Your task to perform on an android device: toggle javascript in the chrome app Image 0: 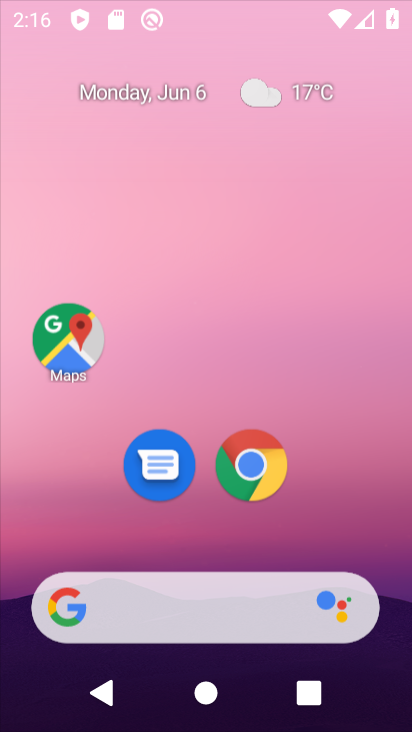
Step 0: click (342, 86)
Your task to perform on an android device: toggle javascript in the chrome app Image 1: 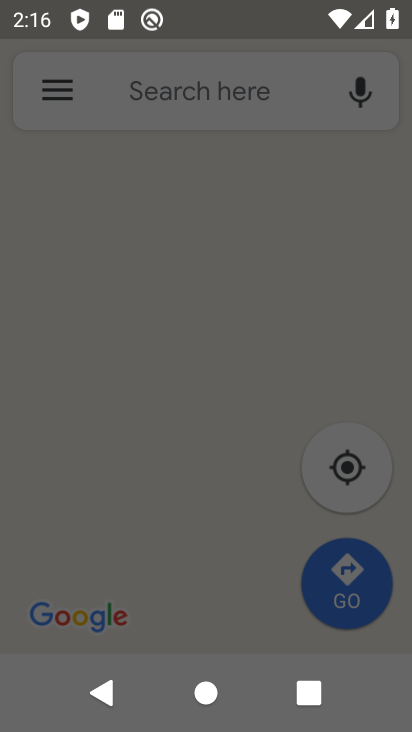
Step 1: press home button
Your task to perform on an android device: toggle javascript in the chrome app Image 2: 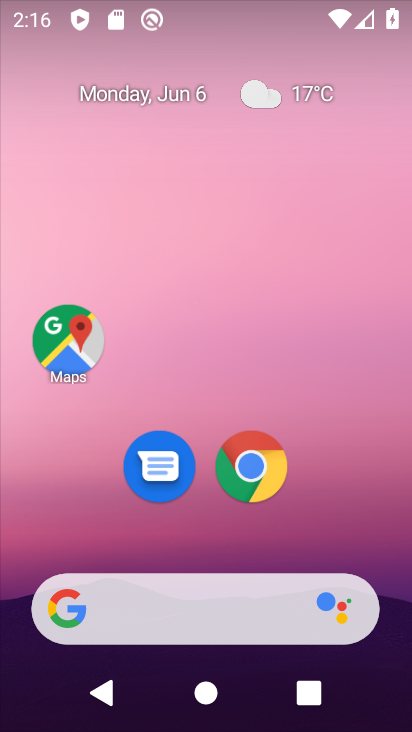
Step 2: click (253, 489)
Your task to perform on an android device: toggle javascript in the chrome app Image 3: 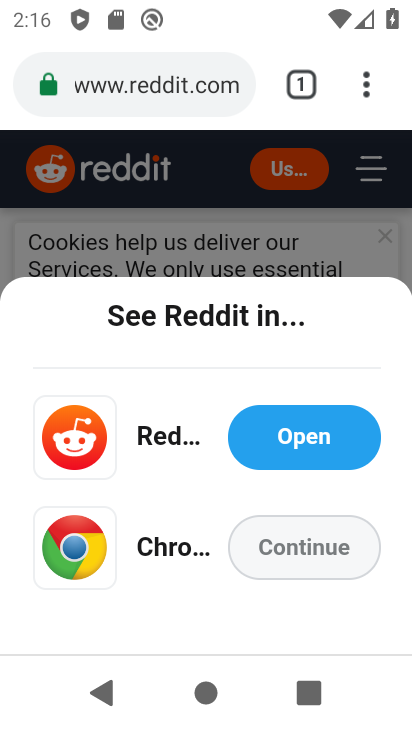
Step 3: click (352, 90)
Your task to perform on an android device: toggle javascript in the chrome app Image 4: 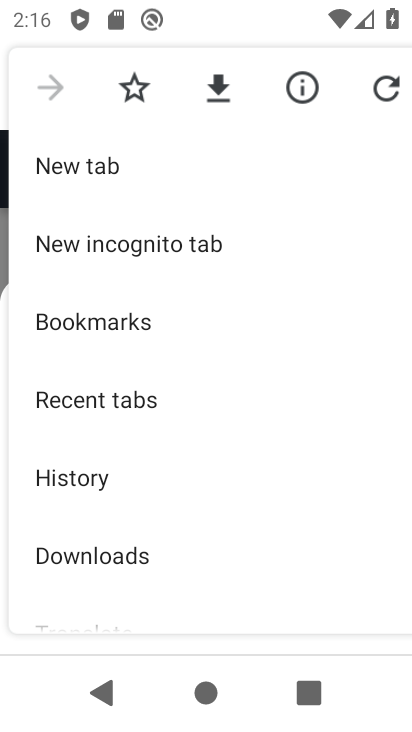
Step 4: drag from (222, 603) to (154, 171)
Your task to perform on an android device: toggle javascript in the chrome app Image 5: 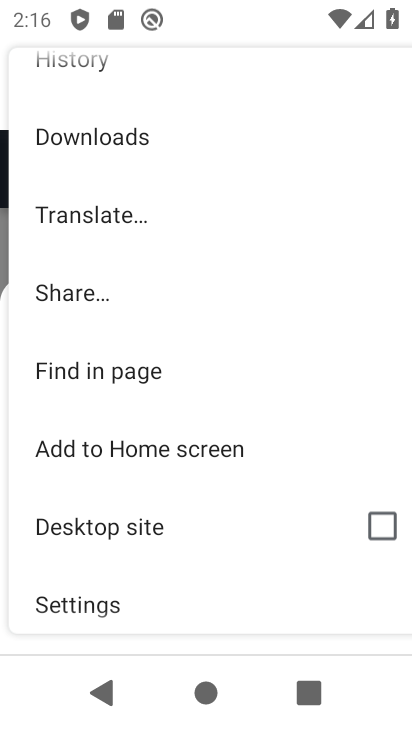
Step 5: drag from (200, 526) to (171, 169)
Your task to perform on an android device: toggle javascript in the chrome app Image 6: 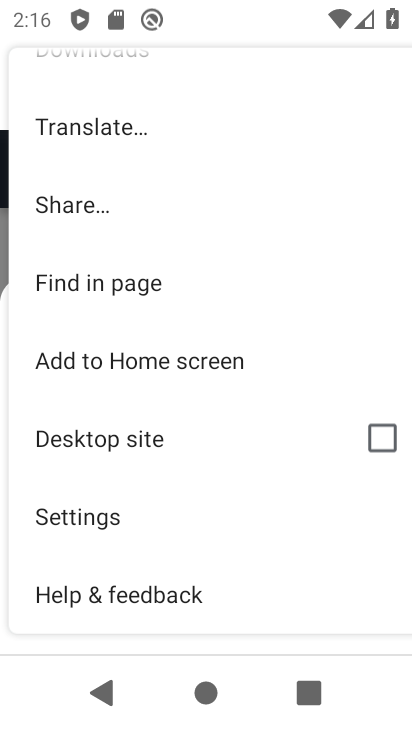
Step 6: click (135, 522)
Your task to perform on an android device: toggle javascript in the chrome app Image 7: 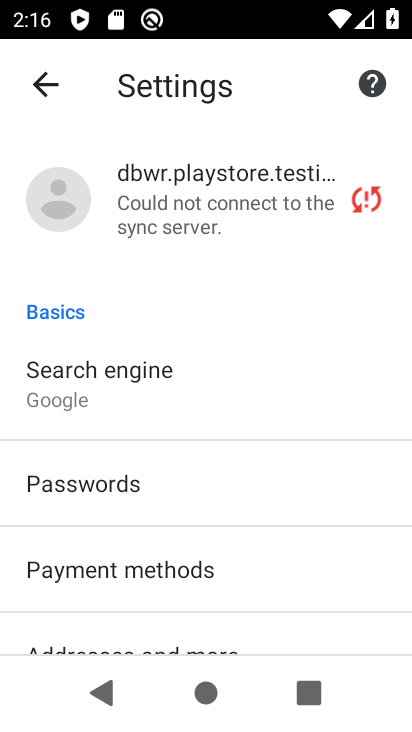
Step 7: drag from (182, 619) to (171, 253)
Your task to perform on an android device: toggle javascript in the chrome app Image 8: 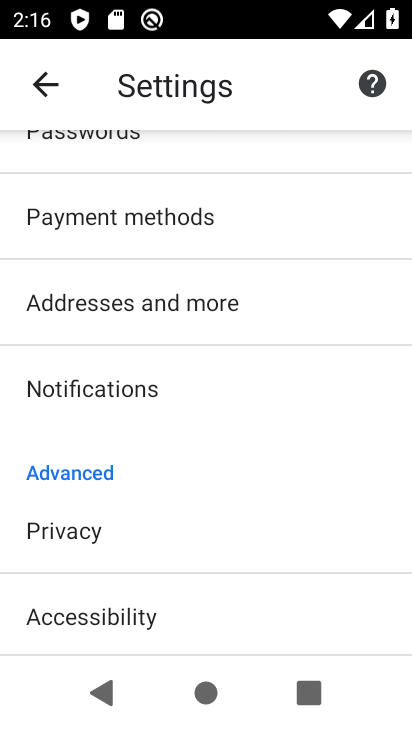
Step 8: drag from (198, 510) to (194, 242)
Your task to perform on an android device: toggle javascript in the chrome app Image 9: 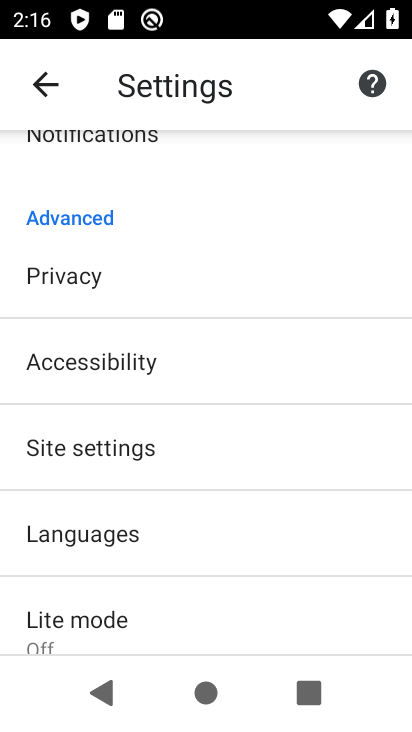
Step 9: click (187, 447)
Your task to perform on an android device: toggle javascript in the chrome app Image 10: 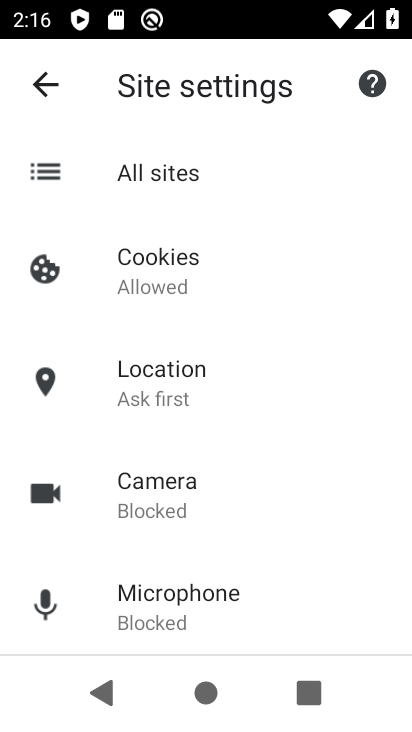
Step 10: drag from (255, 558) to (236, 251)
Your task to perform on an android device: toggle javascript in the chrome app Image 11: 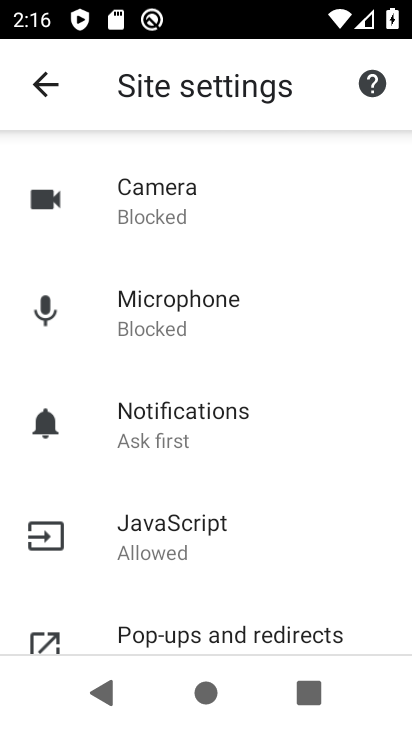
Step 11: click (225, 528)
Your task to perform on an android device: toggle javascript in the chrome app Image 12: 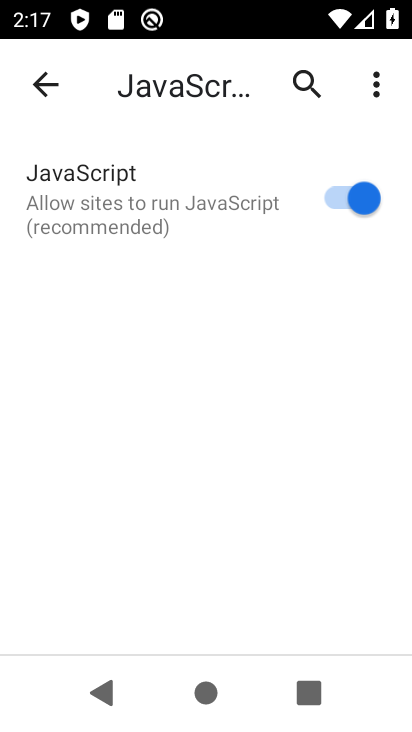
Step 12: click (347, 203)
Your task to perform on an android device: toggle javascript in the chrome app Image 13: 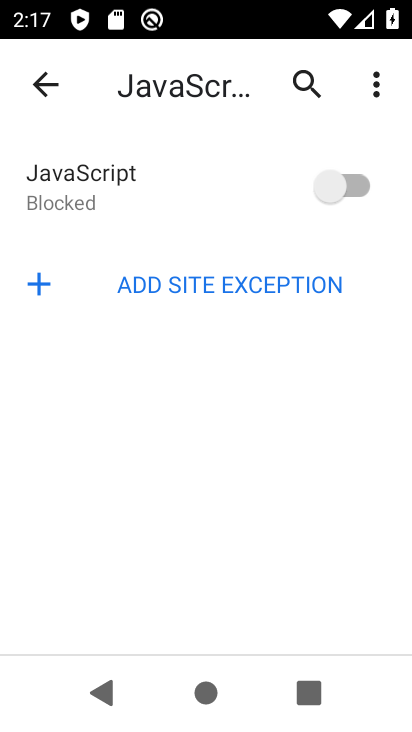
Step 13: task complete